Your task to perform on an android device: uninstall "Facebook" Image 0: 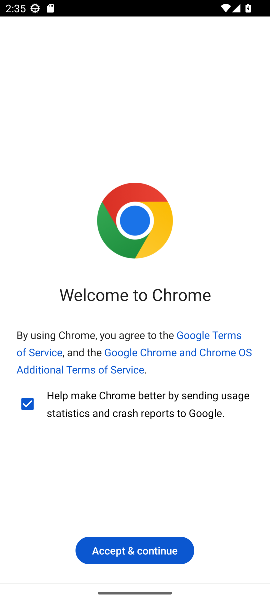
Step 0: press home button
Your task to perform on an android device: uninstall "Facebook" Image 1: 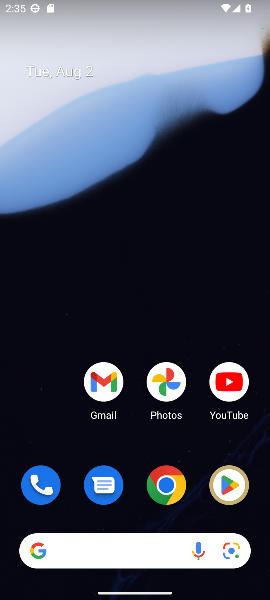
Step 1: click (223, 487)
Your task to perform on an android device: uninstall "Facebook" Image 2: 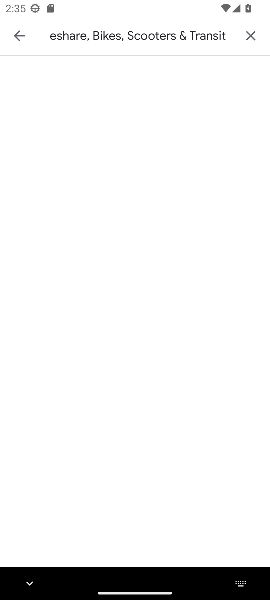
Step 2: click (253, 38)
Your task to perform on an android device: uninstall "Facebook" Image 3: 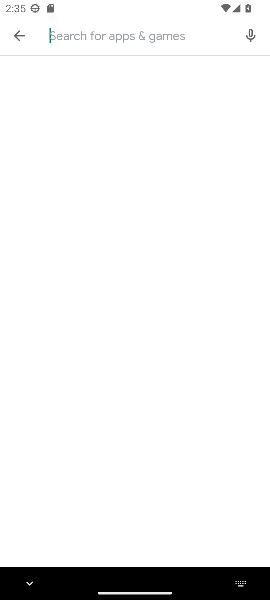
Step 3: type "facebook"
Your task to perform on an android device: uninstall "Facebook" Image 4: 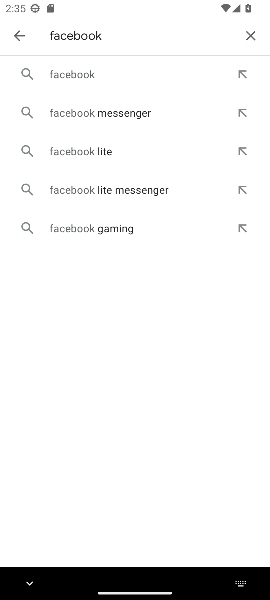
Step 4: click (90, 76)
Your task to perform on an android device: uninstall "Facebook" Image 5: 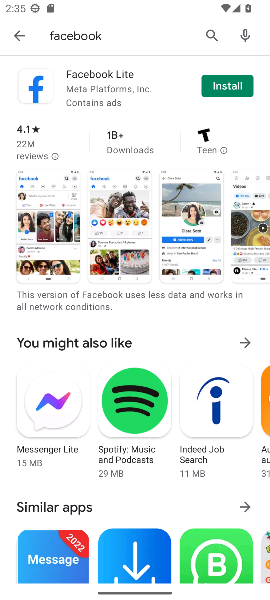
Step 5: task complete